Your task to perform on an android device: remove spam from my inbox in the gmail app Image 0: 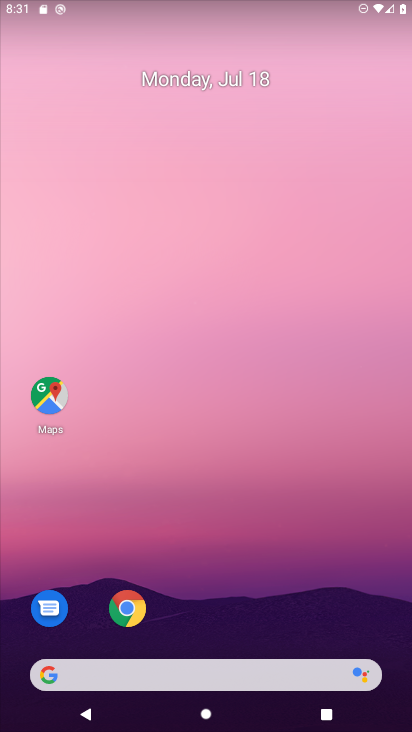
Step 0: drag from (290, 451) to (304, 66)
Your task to perform on an android device: remove spam from my inbox in the gmail app Image 1: 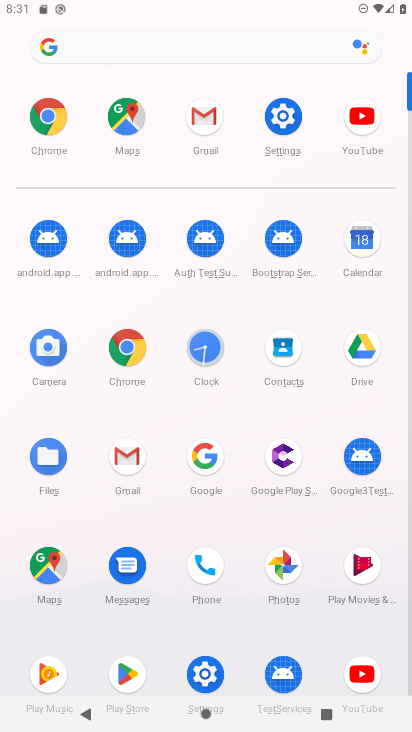
Step 1: click (208, 114)
Your task to perform on an android device: remove spam from my inbox in the gmail app Image 2: 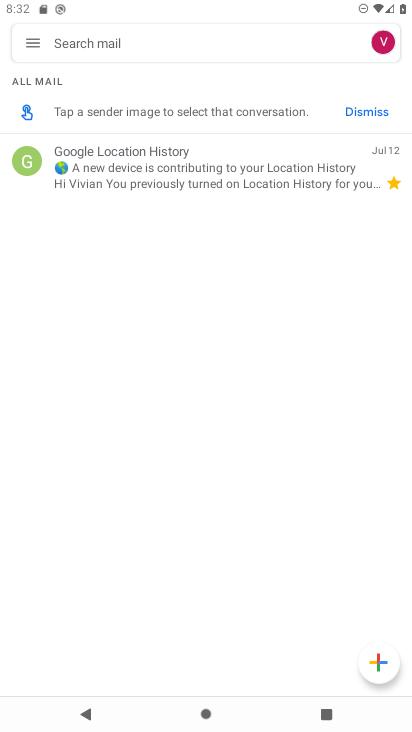
Step 2: click (31, 45)
Your task to perform on an android device: remove spam from my inbox in the gmail app Image 3: 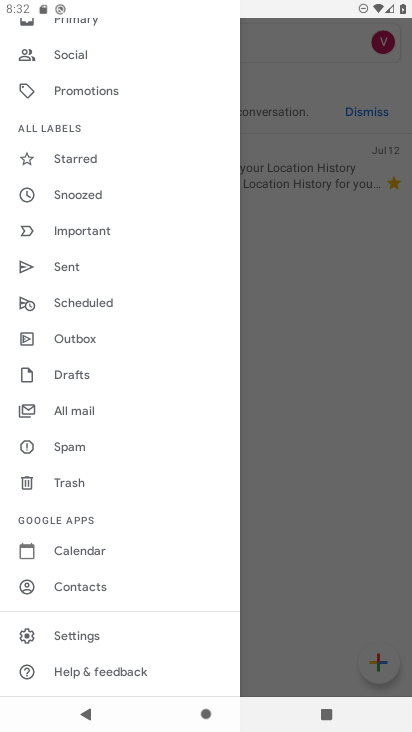
Step 3: click (82, 433)
Your task to perform on an android device: remove spam from my inbox in the gmail app Image 4: 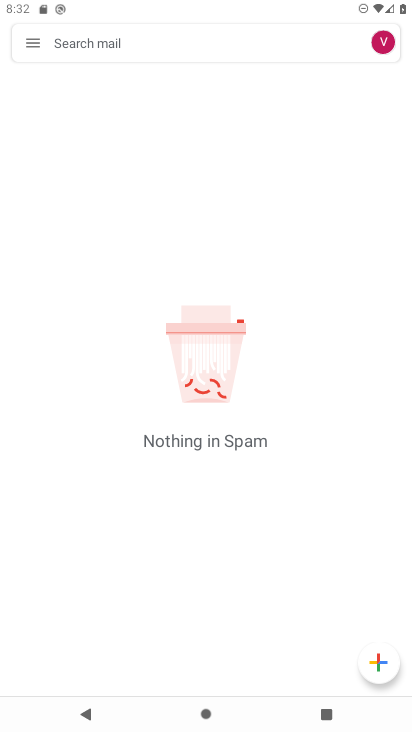
Step 4: task complete